Your task to perform on an android device: show emergency info Image 0: 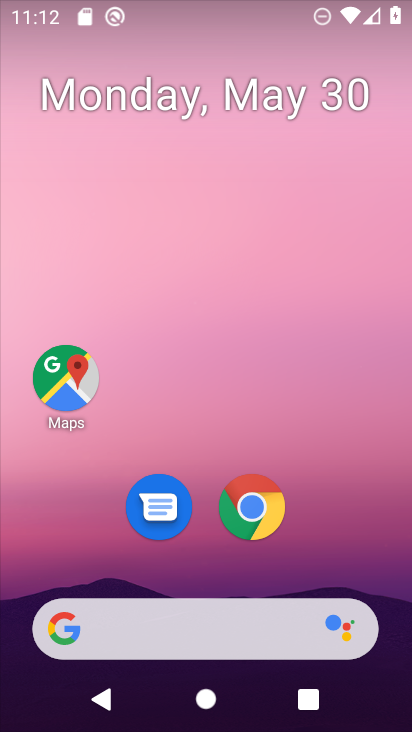
Step 0: drag from (383, 612) to (267, 114)
Your task to perform on an android device: show emergency info Image 1: 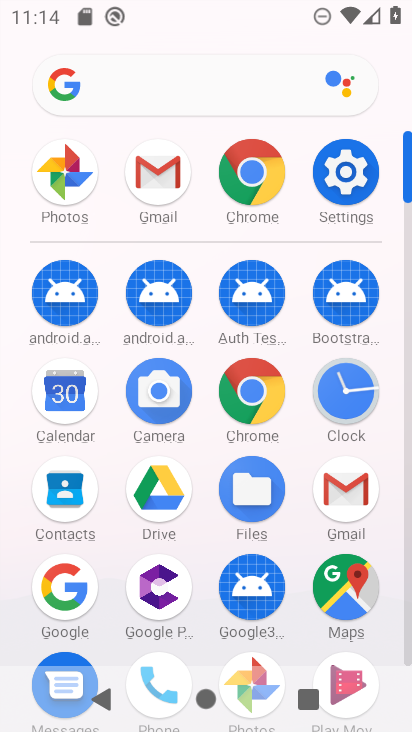
Step 1: click (351, 178)
Your task to perform on an android device: show emergency info Image 2: 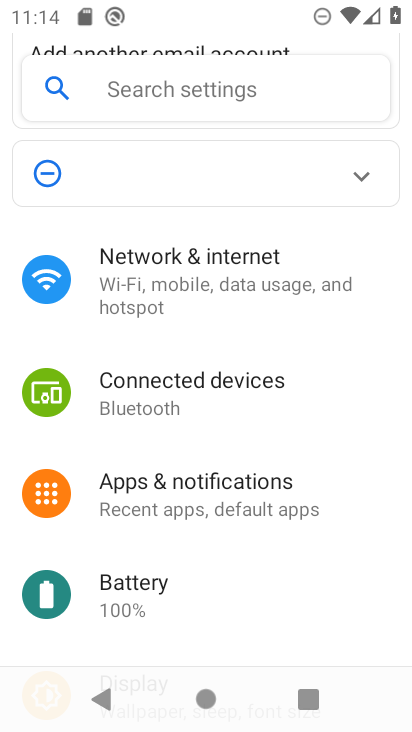
Step 2: drag from (194, 614) to (236, 16)
Your task to perform on an android device: show emergency info Image 3: 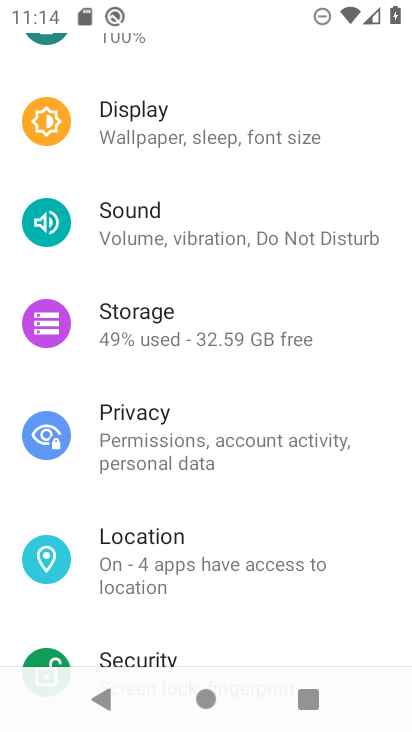
Step 3: drag from (144, 628) to (214, 7)
Your task to perform on an android device: show emergency info Image 4: 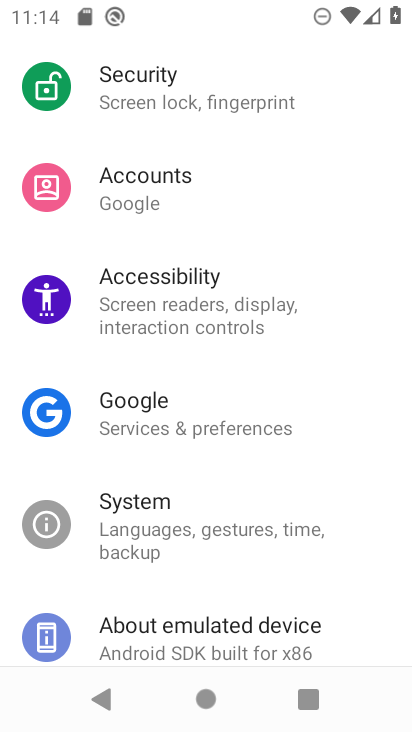
Step 4: click (160, 622)
Your task to perform on an android device: show emergency info Image 5: 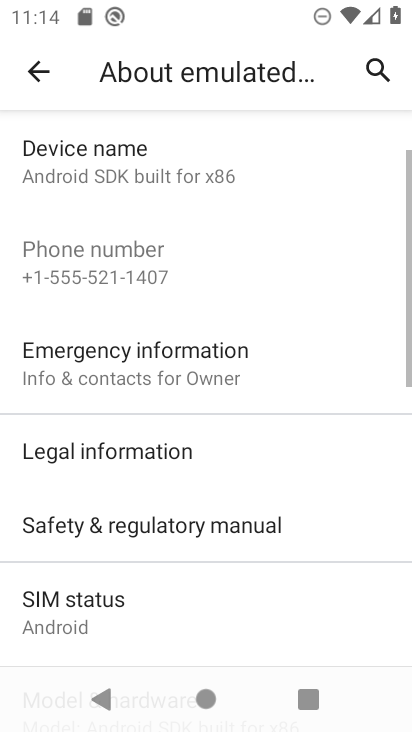
Step 5: click (171, 385)
Your task to perform on an android device: show emergency info Image 6: 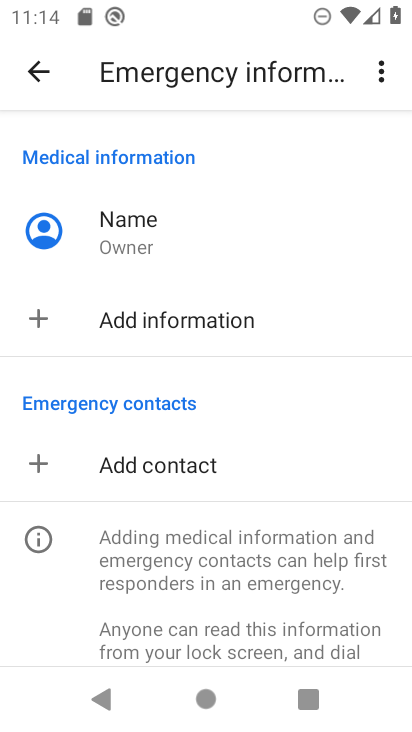
Step 6: task complete